Your task to perform on an android device: turn notification dots off Image 0: 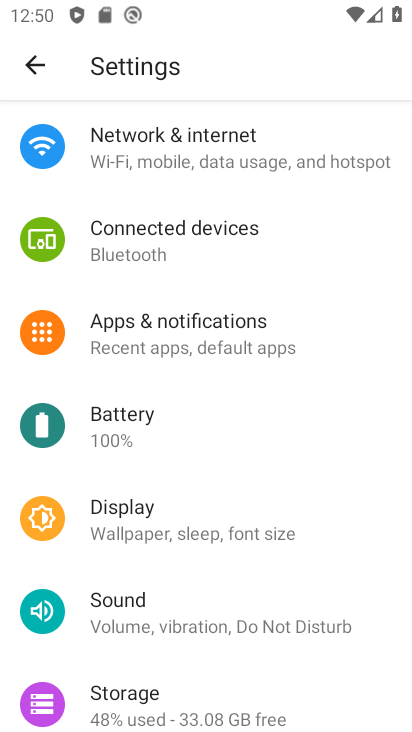
Step 0: click (129, 301)
Your task to perform on an android device: turn notification dots off Image 1: 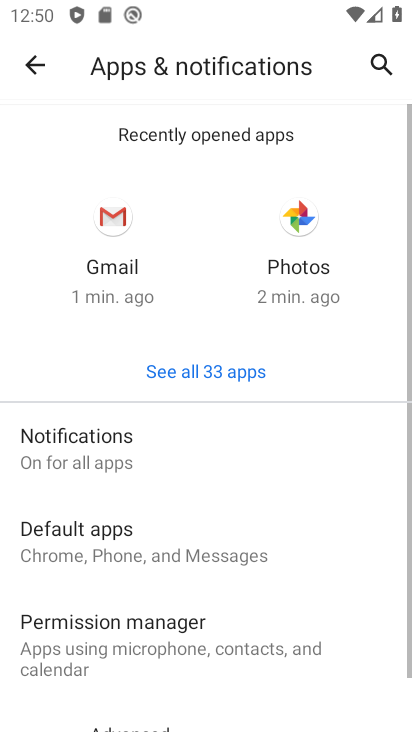
Step 1: click (140, 441)
Your task to perform on an android device: turn notification dots off Image 2: 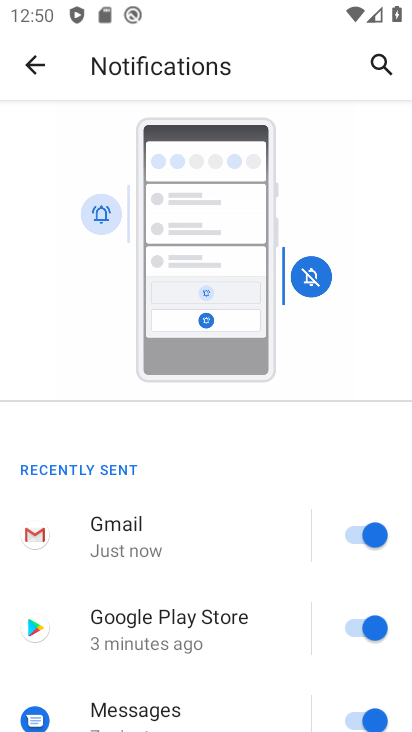
Step 2: drag from (243, 465) to (399, 721)
Your task to perform on an android device: turn notification dots off Image 3: 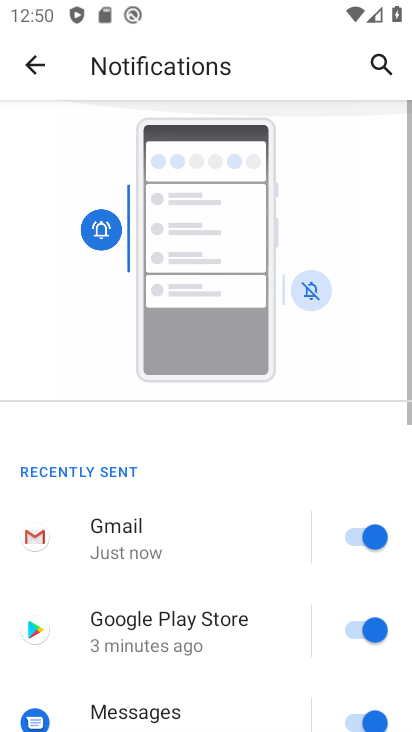
Step 3: click (236, 570)
Your task to perform on an android device: turn notification dots off Image 4: 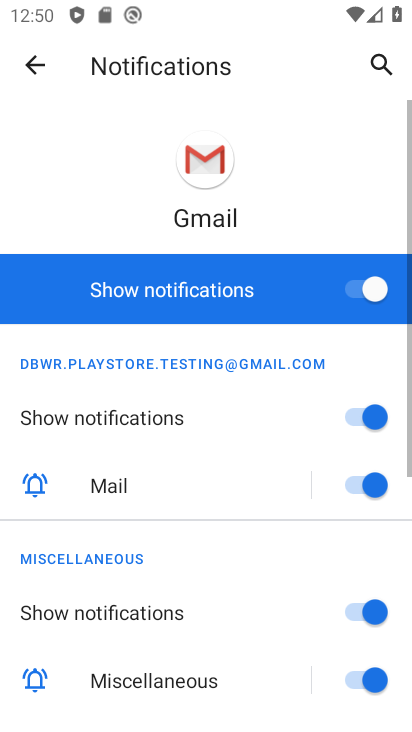
Step 4: click (26, 68)
Your task to perform on an android device: turn notification dots off Image 5: 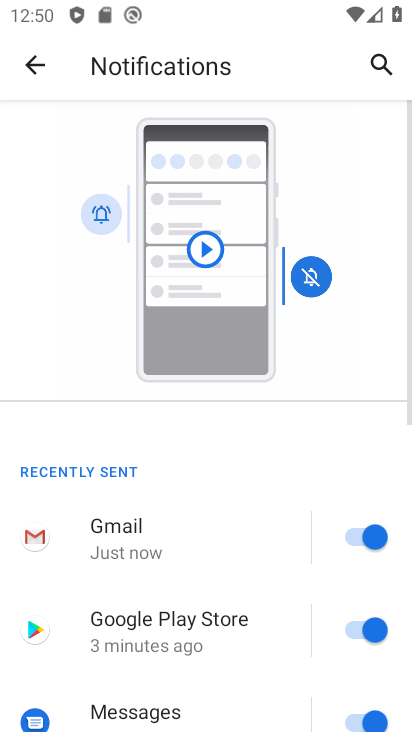
Step 5: drag from (233, 621) to (145, 145)
Your task to perform on an android device: turn notification dots off Image 6: 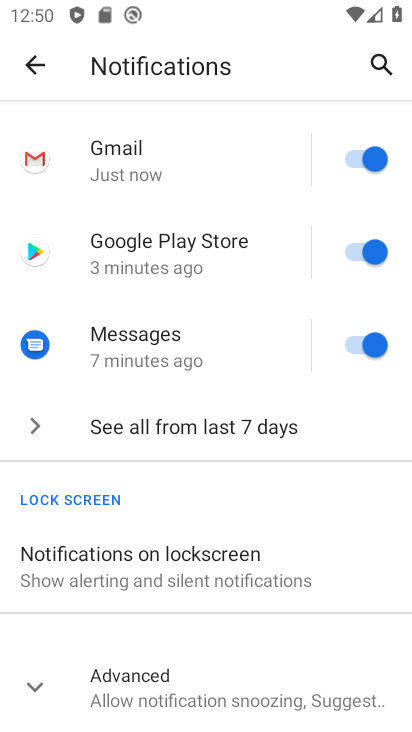
Step 6: click (248, 565)
Your task to perform on an android device: turn notification dots off Image 7: 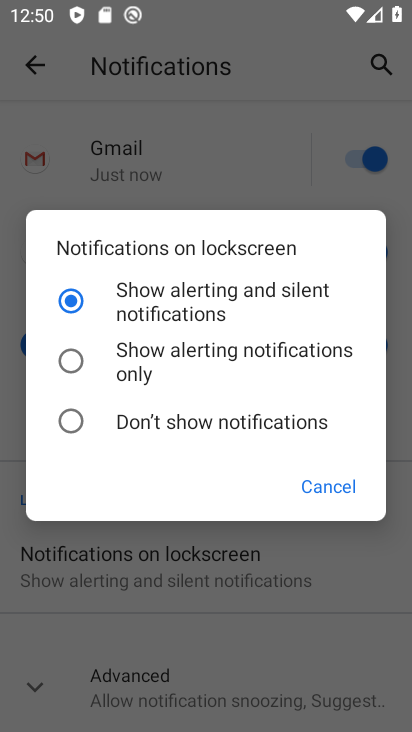
Step 7: click (341, 493)
Your task to perform on an android device: turn notification dots off Image 8: 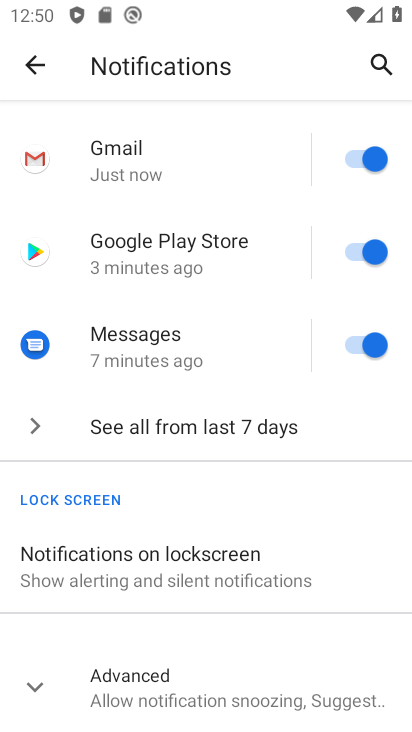
Step 8: click (263, 709)
Your task to perform on an android device: turn notification dots off Image 9: 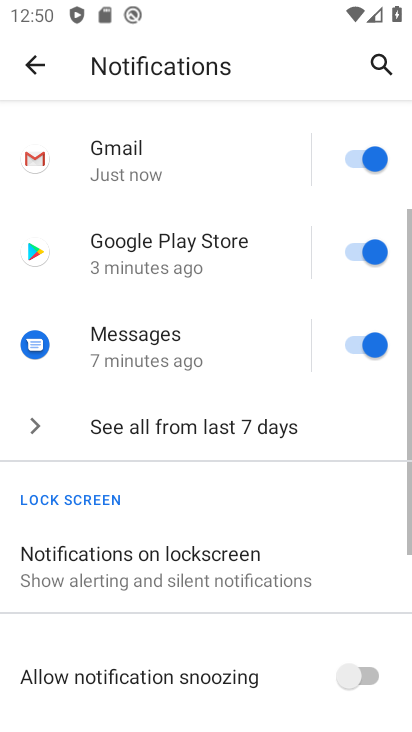
Step 9: drag from (318, 697) to (242, 424)
Your task to perform on an android device: turn notification dots off Image 10: 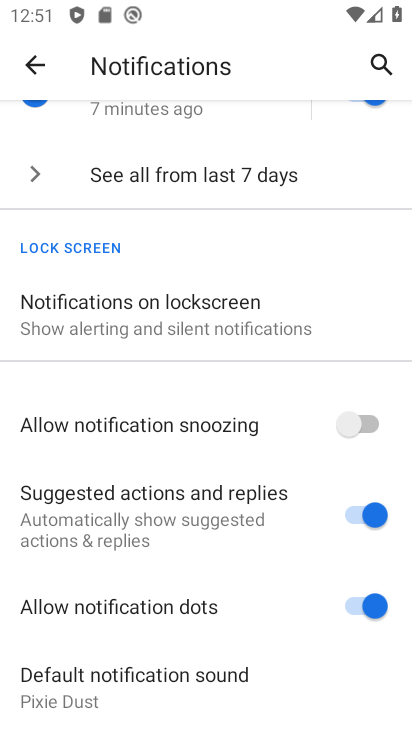
Step 10: click (252, 606)
Your task to perform on an android device: turn notification dots off Image 11: 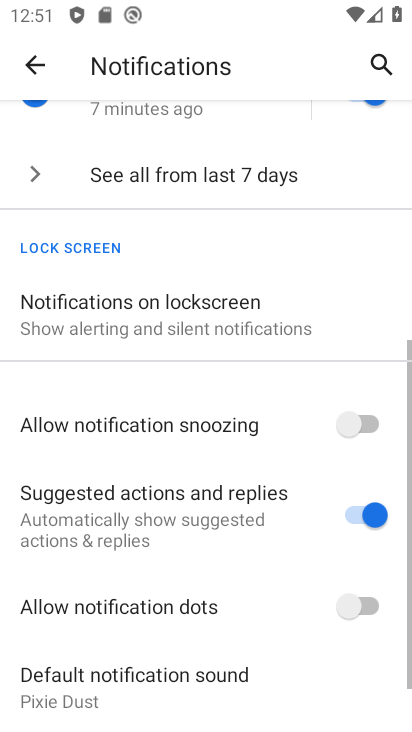
Step 11: task complete